Your task to perform on an android device: Search for Italian restaurants on Maps Image 0: 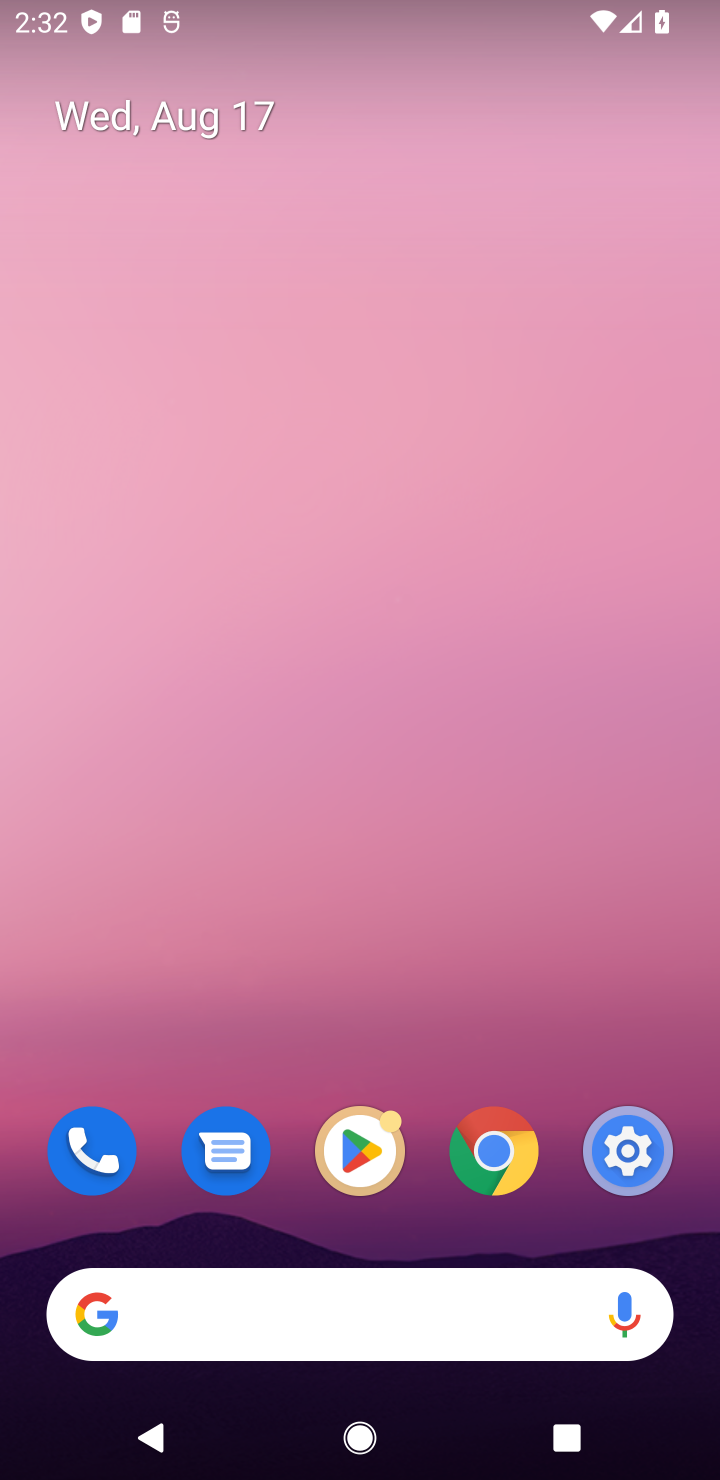
Step 0: drag from (352, 1375) to (262, 514)
Your task to perform on an android device: Search for Italian restaurants on Maps Image 1: 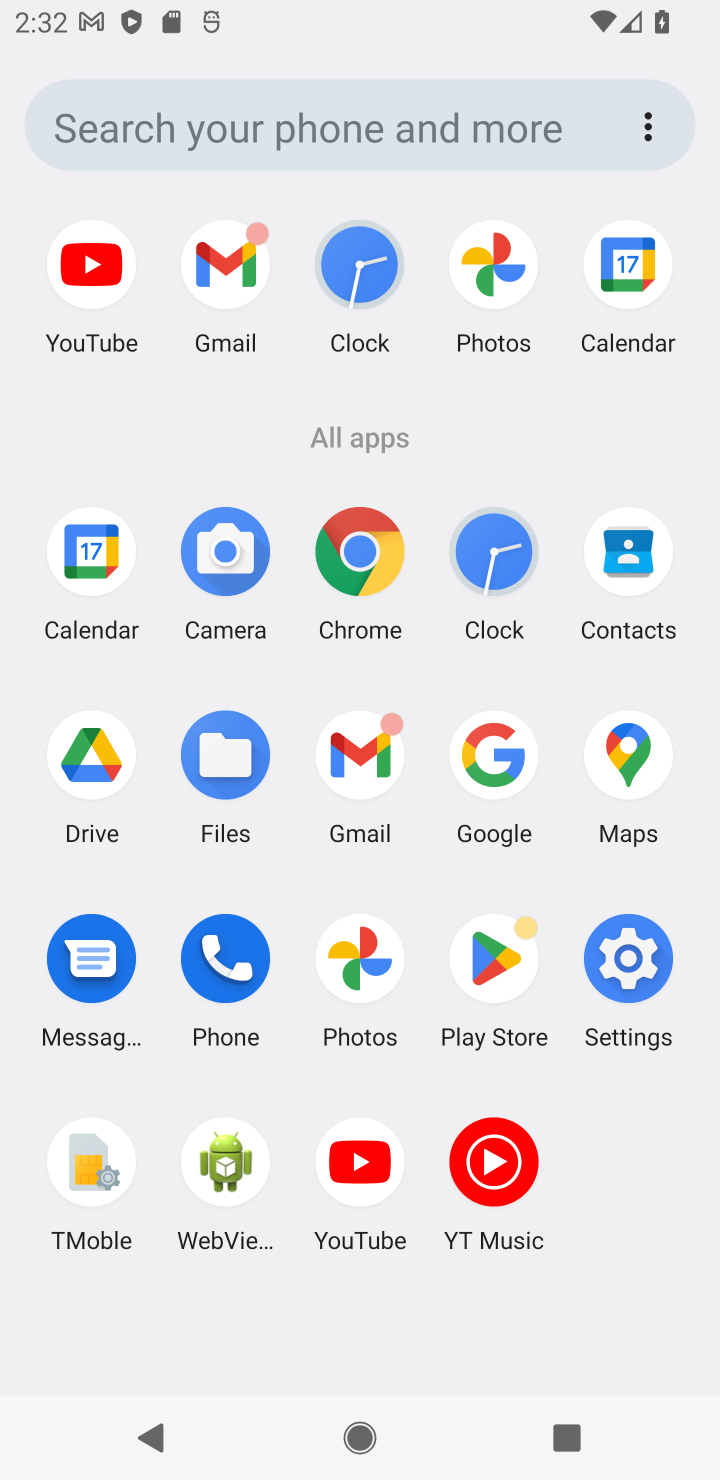
Step 1: click (610, 773)
Your task to perform on an android device: Search for Italian restaurants on Maps Image 2: 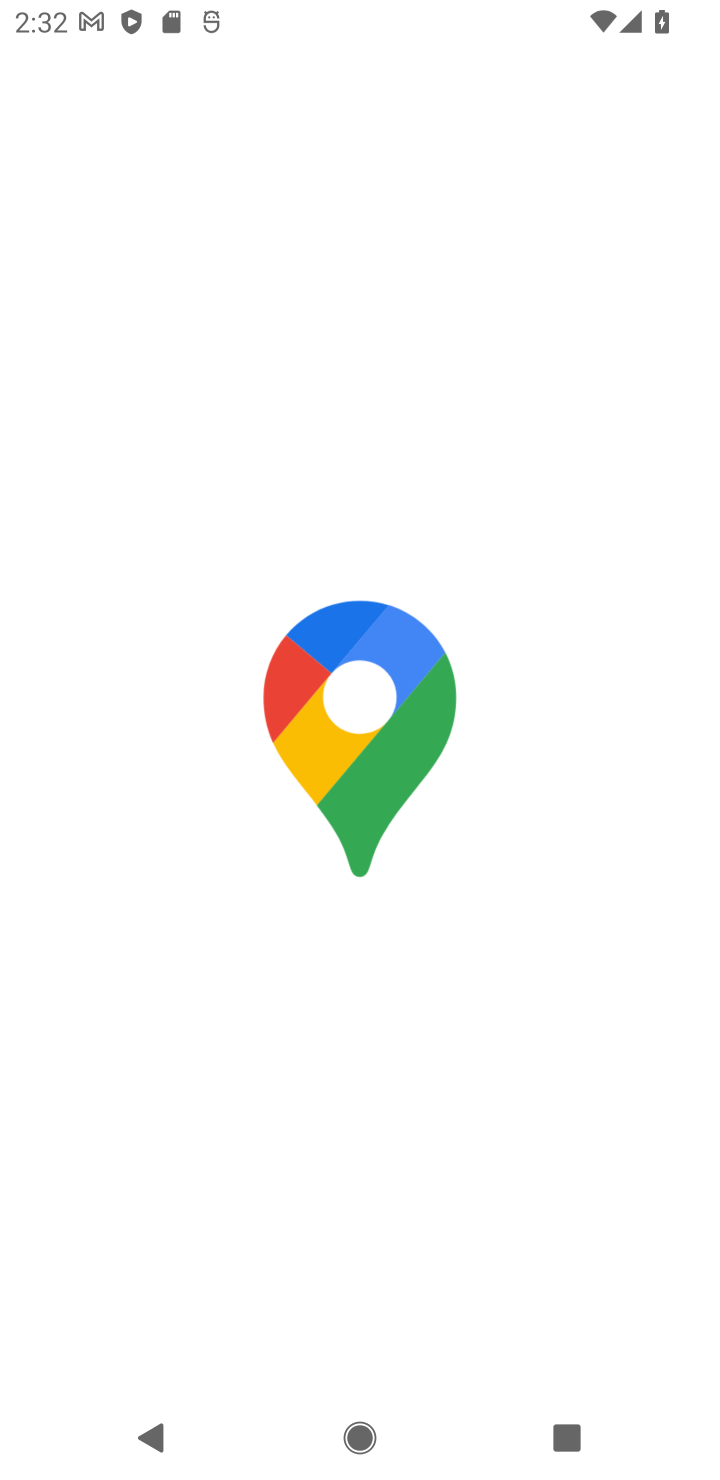
Step 2: task complete